Your task to perform on an android device: Do I have any events this weekend? Image 0: 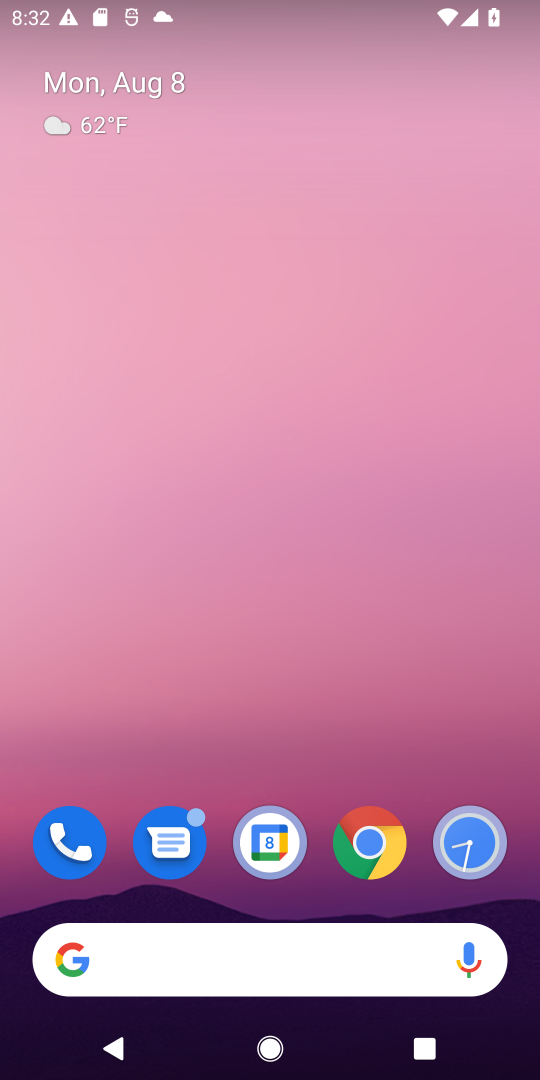
Step 0: click (263, 841)
Your task to perform on an android device: Do I have any events this weekend? Image 1: 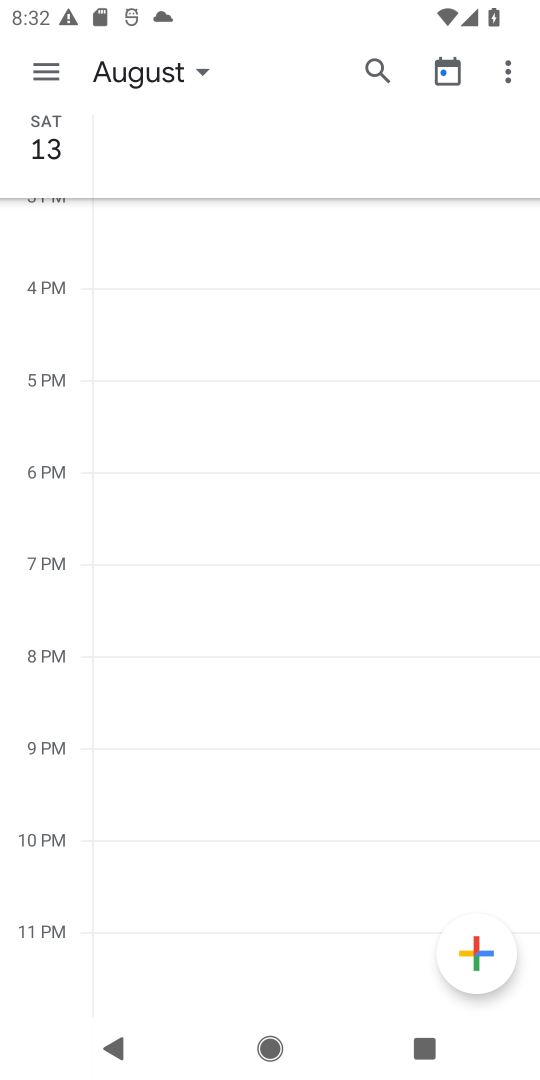
Step 1: task complete